Your task to perform on an android device: Open notification settings Image 0: 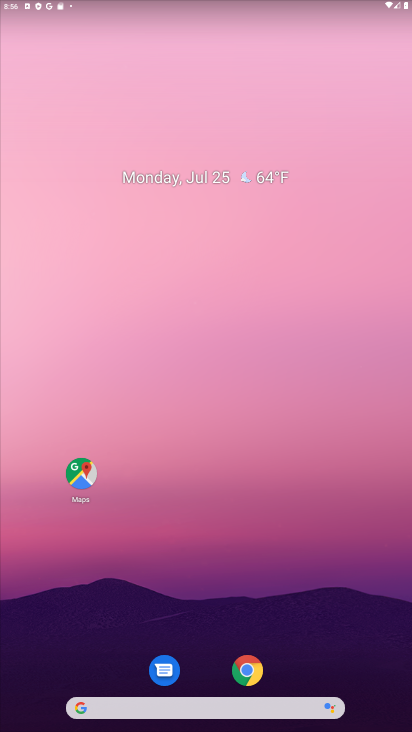
Step 0: drag from (337, 599) to (109, 11)
Your task to perform on an android device: Open notification settings Image 1: 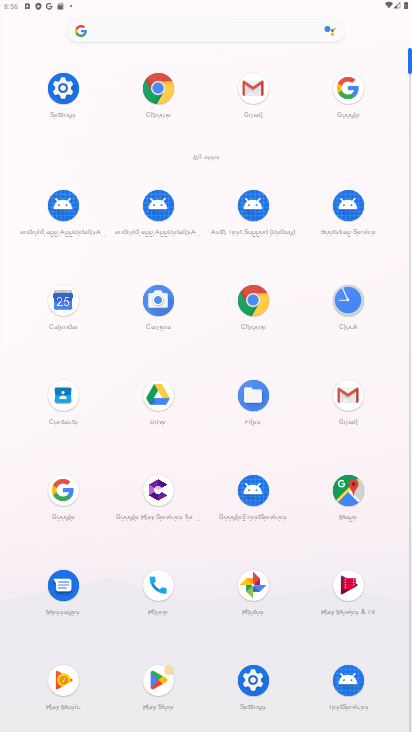
Step 1: click (67, 103)
Your task to perform on an android device: Open notification settings Image 2: 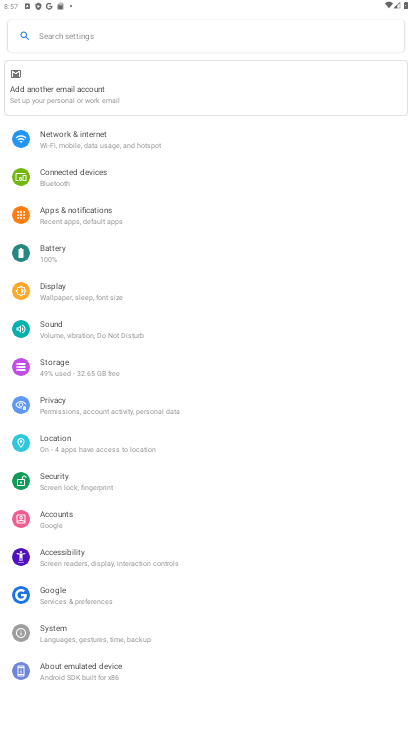
Step 2: click (104, 223)
Your task to perform on an android device: Open notification settings Image 3: 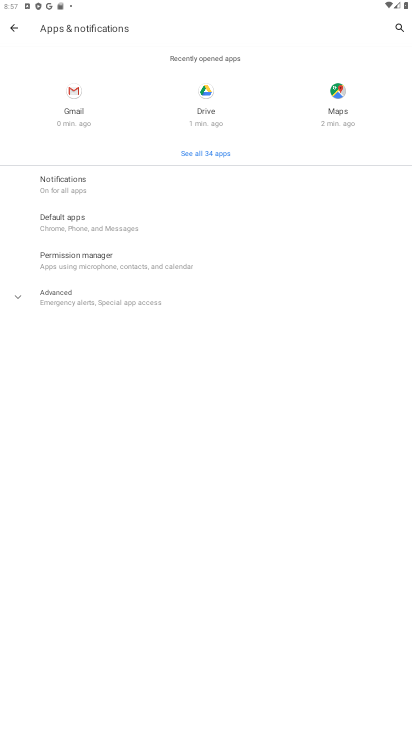
Step 3: click (68, 192)
Your task to perform on an android device: Open notification settings Image 4: 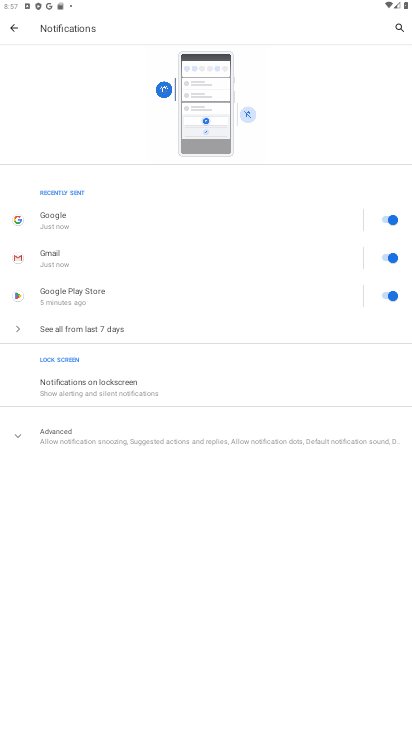
Step 4: task complete